Your task to perform on an android device: Open sound settings Image 0: 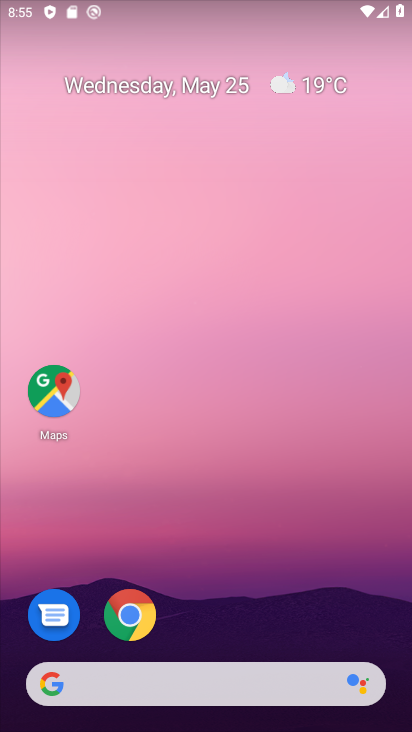
Step 0: drag from (270, 715) to (270, 170)
Your task to perform on an android device: Open sound settings Image 1: 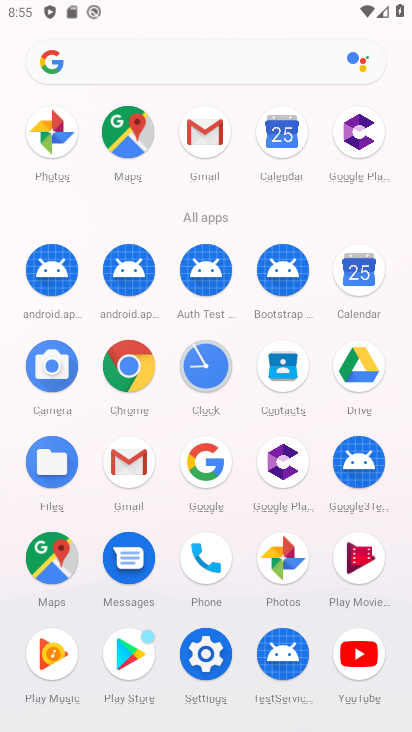
Step 1: click (202, 657)
Your task to perform on an android device: Open sound settings Image 2: 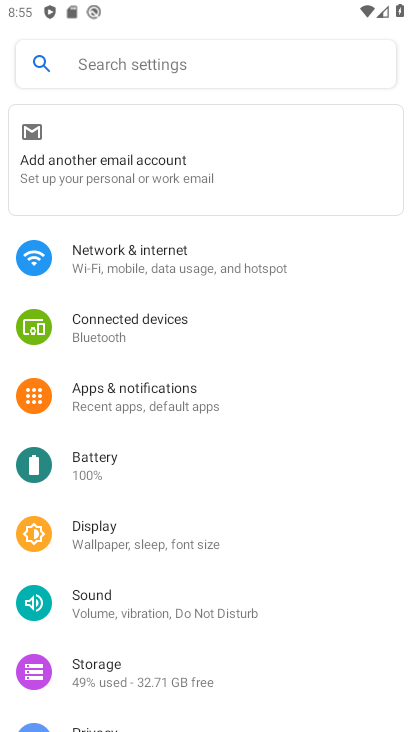
Step 2: click (122, 591)
Your task to perform on an android device: Open sound settings Image 3: 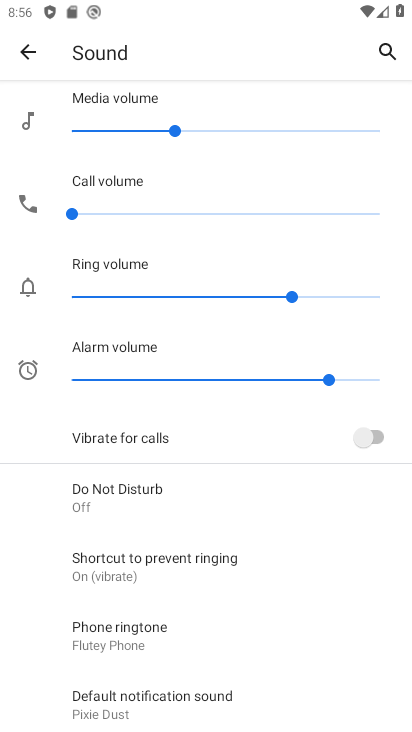
Step 3: task complete